Your task to perform on an android device: Show me popular games on the Play Store Image 0: 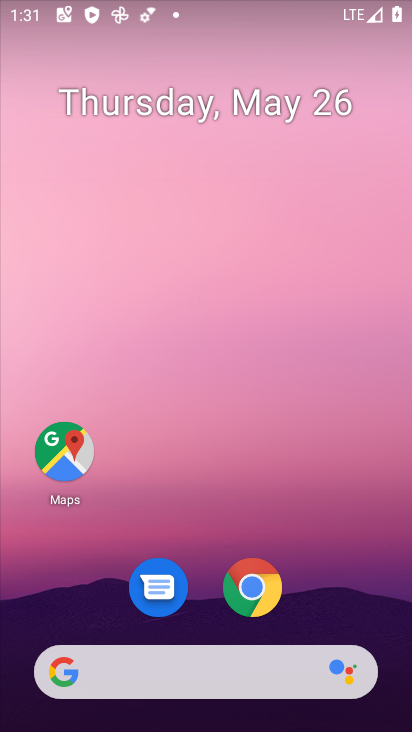
Step 0: drag from (385, 634) to (384, 261)
Your task to perform on an android device: Show me popular games on the Play Store Image 1: 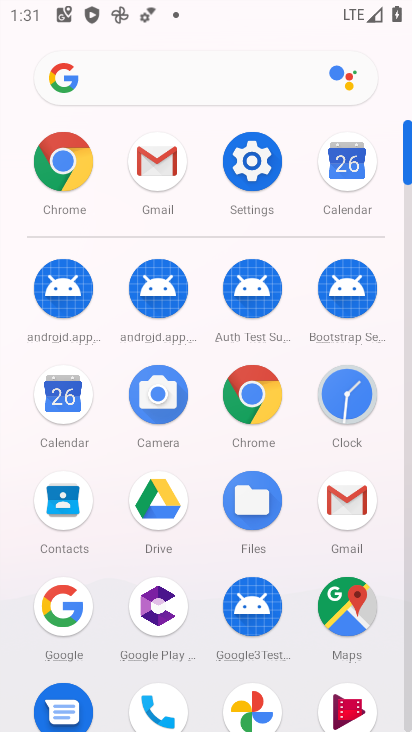
Step 1: drag from (385, 624) to (383, 269)
Your task to perform on an android device: Show me popular games on the Play Store Image 2: 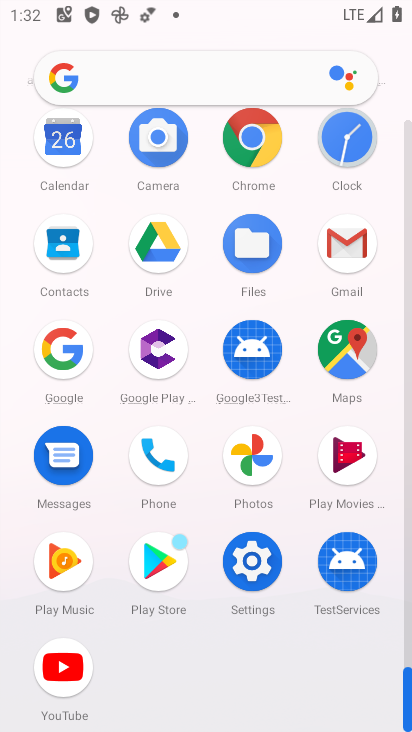
Step 2: click (152, 555)
Your task to perform on an android device: Show me popular games on the Play Store Image 3: 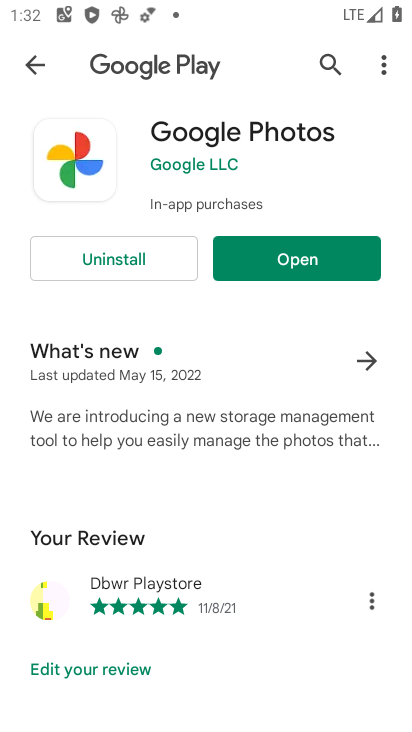
Step 3: click (35, 67)
Your task to perform on an android device: Show me popular games on the Play Store Image 4: 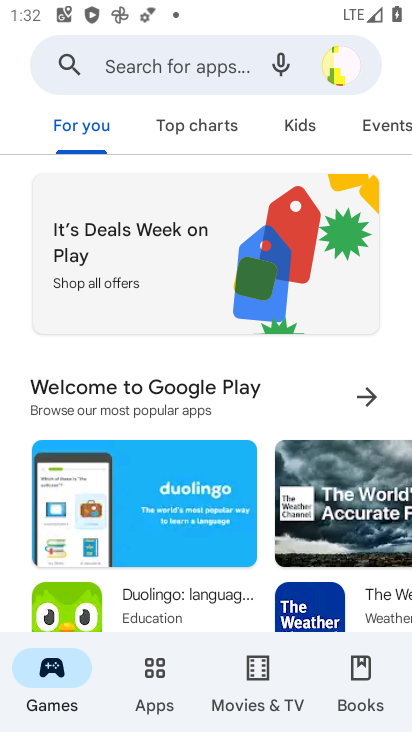
Step 4: task complete